Your task to perform on an android device: What's the weather going to be tomorrow? Image 0: 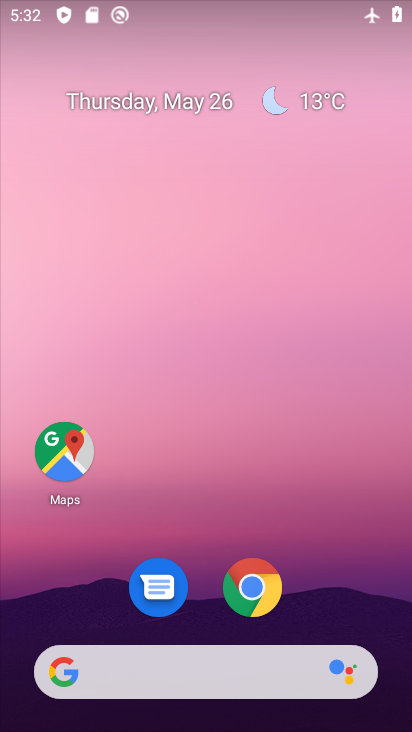
Step 0: drag from (232, 723) to (238, 122)
Your task to perform on an android device: What's the weather going to be tomorrow? Image 1: 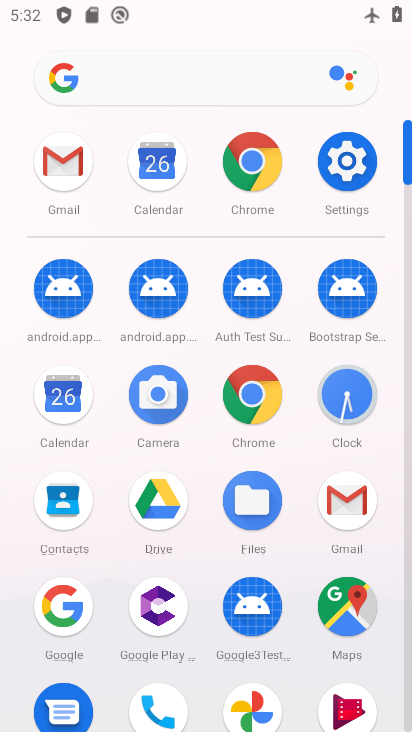
Step 1: click (68, 609)
Your task to perform on an android device: What's the weather going to be tomorrow? Image 2: 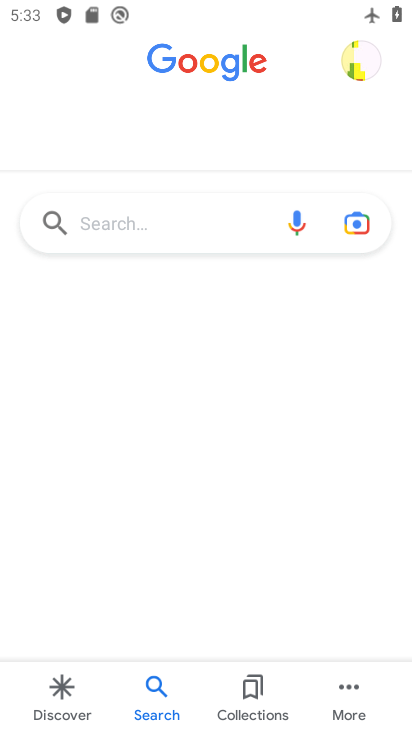
Step 2: click (161, 225)
Your task to perform on an android device: What's the weather going to be tomorrow? Image 3: 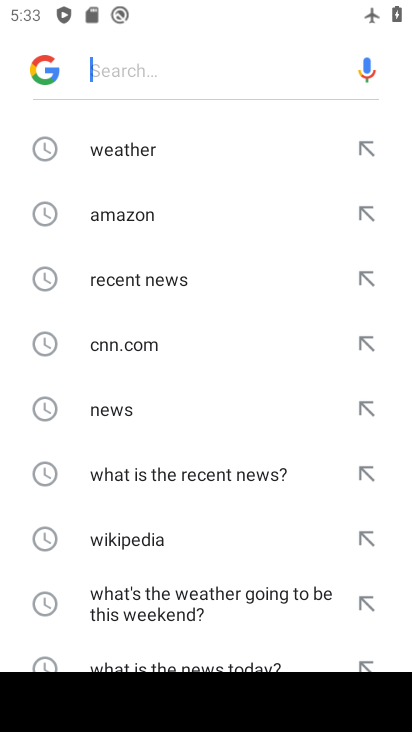
Step 3: click (126, 147)
Your task to perform on an android device: What's the weather going to be tomorrow? Image 4: 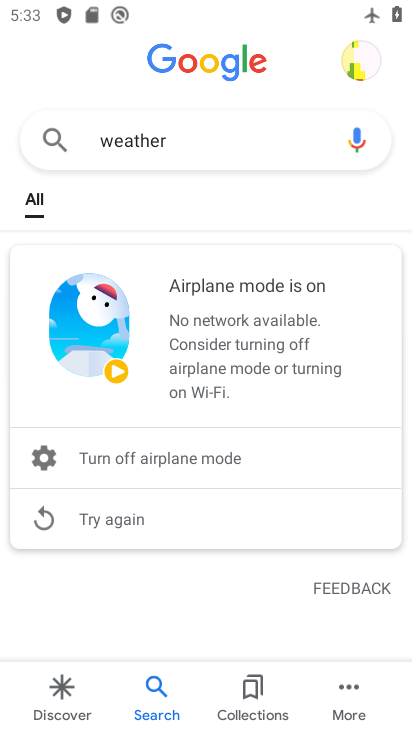
Step 4: task complete